Your task to perform on an android device: turn off wifi Image 0: 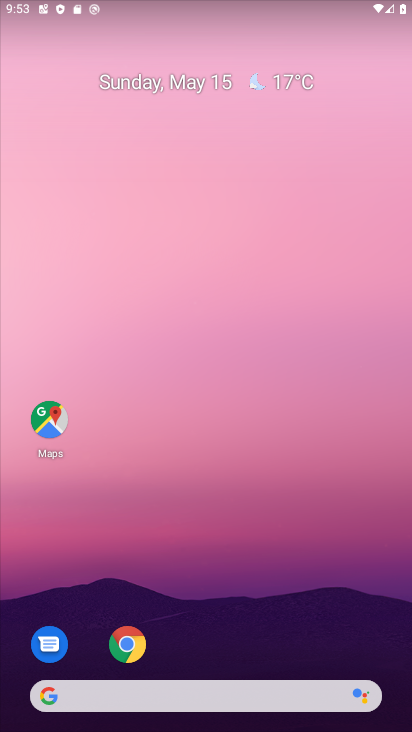
Step 0: drag from (264, 703) to (215, 222)
Your task to perform on an android device: turn off wifi Image 1: 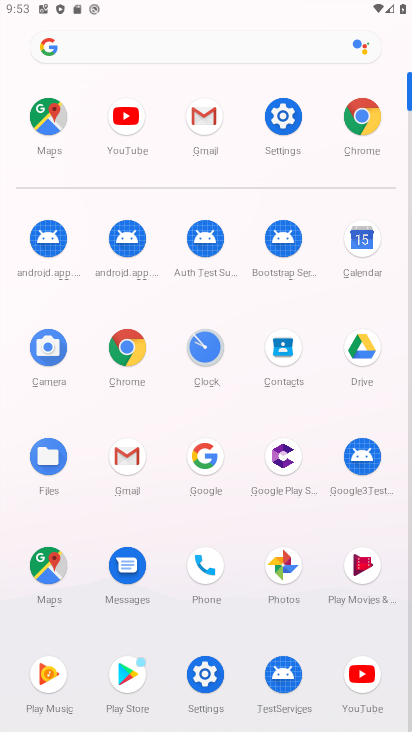
Step 1: click (286, 129)
Your task to perform on an android device: turn off wifi Image 2: 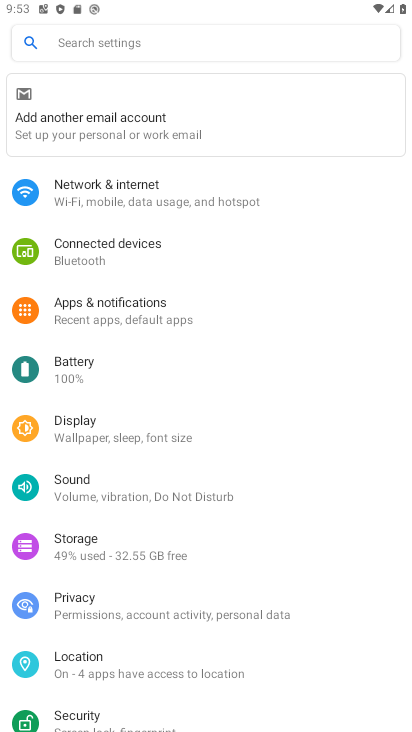
Step 2: click (115, 184)
Your task to perform on an android device: turn off wifi Image 3: 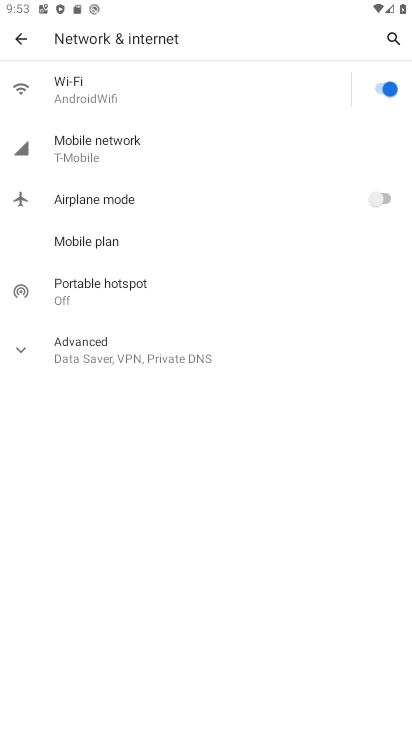
Step 3: click (369, 88)
Your task to perform on an android device: turn off wifi Image 4: 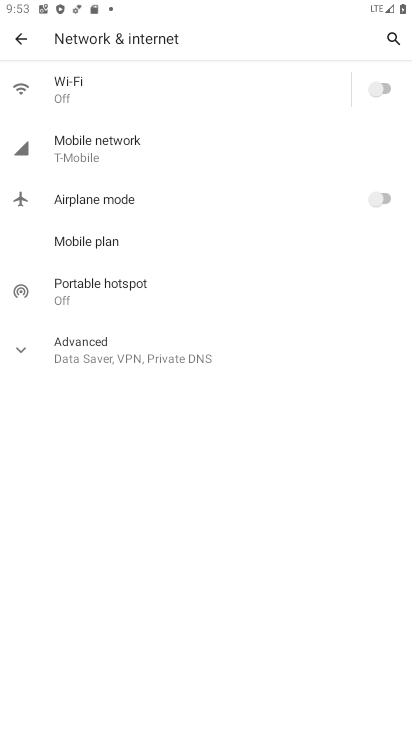
Step 4: task complete